Your task to perform on an android device: refresh tabs in the chrome app Image 0: 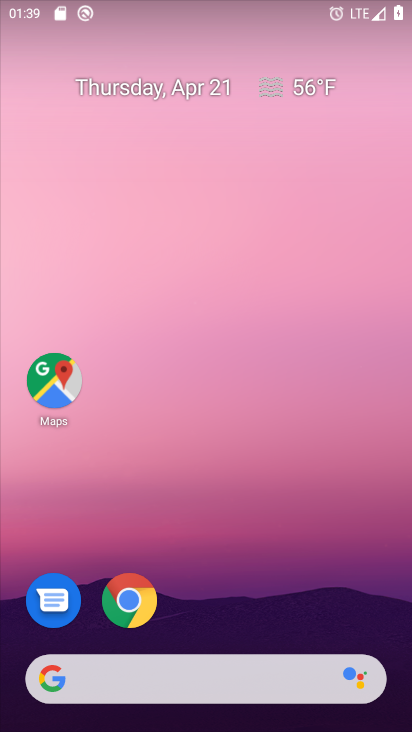
Step 0: click (127, 591)
Your task to perform on an android device: refresh tabs in the chrome app Image 1: 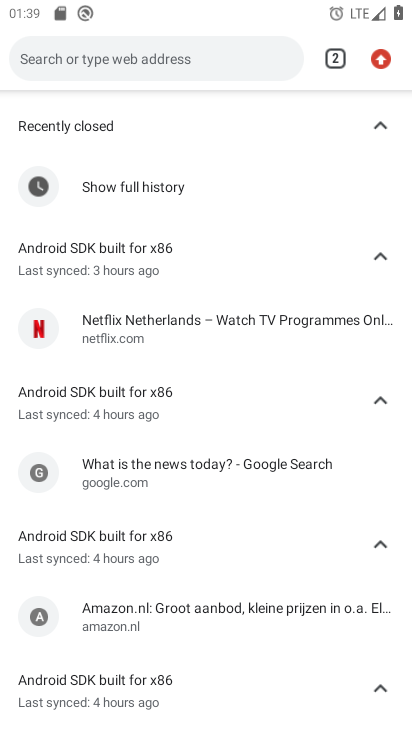
Step 1: click (380, 52)
Your task to perform on an android device: refresh tabs in the chrome app Image 2: 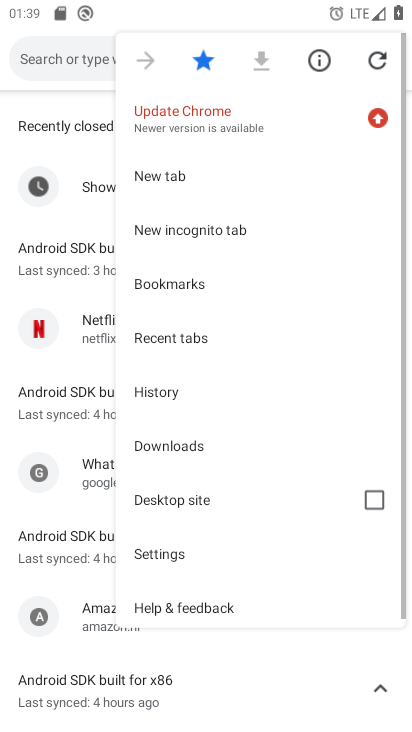
Step 2: click (380, 52)
Your task to perform on an android device: refresh tabs in the chrome app Image 3: 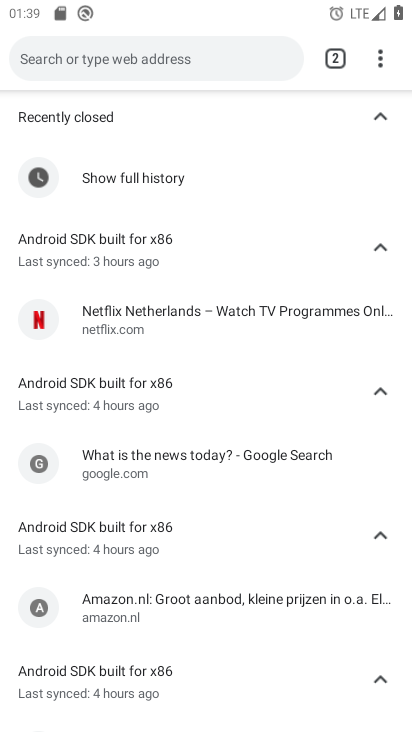
Step 3: task complete